Your task to perform on an android device: Search for hotels in New York Image 0: 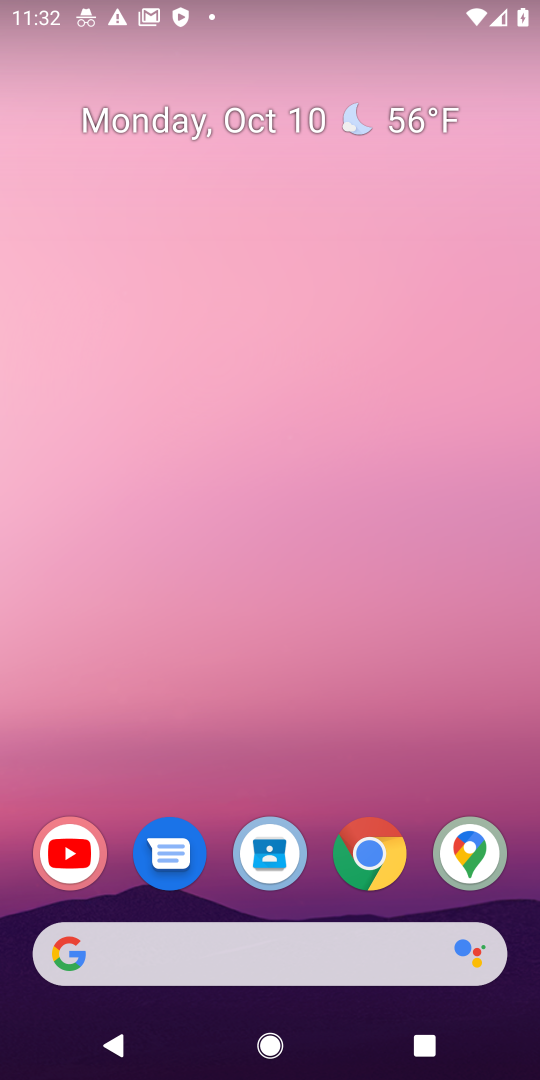
Step 0: press home button
Your task to perform on an android device: Search for hotels in New York Image 1: 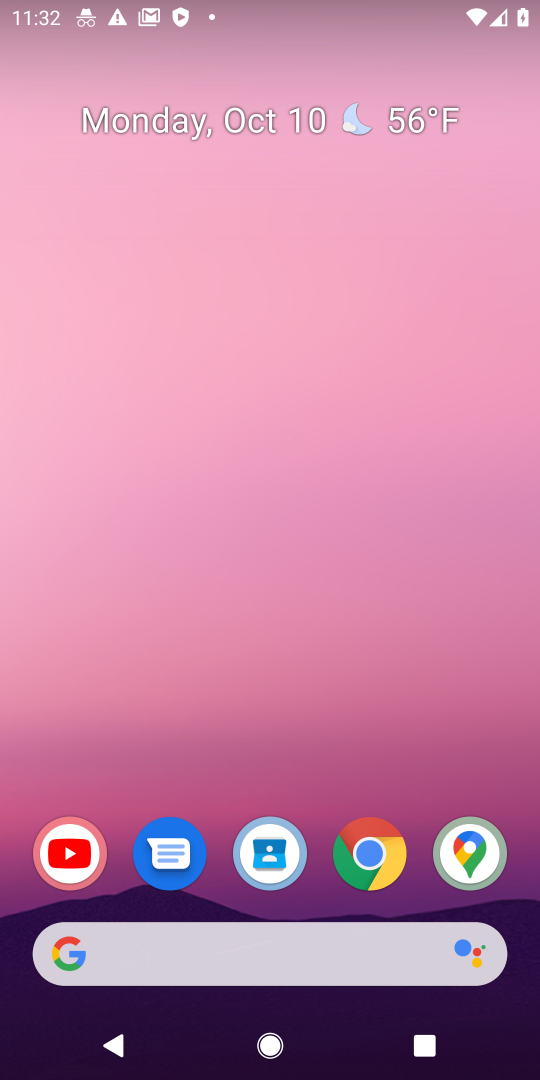
Step 1: click (333, 954)
Your task to perform on an android device: Search for hotels in New York Image 2: 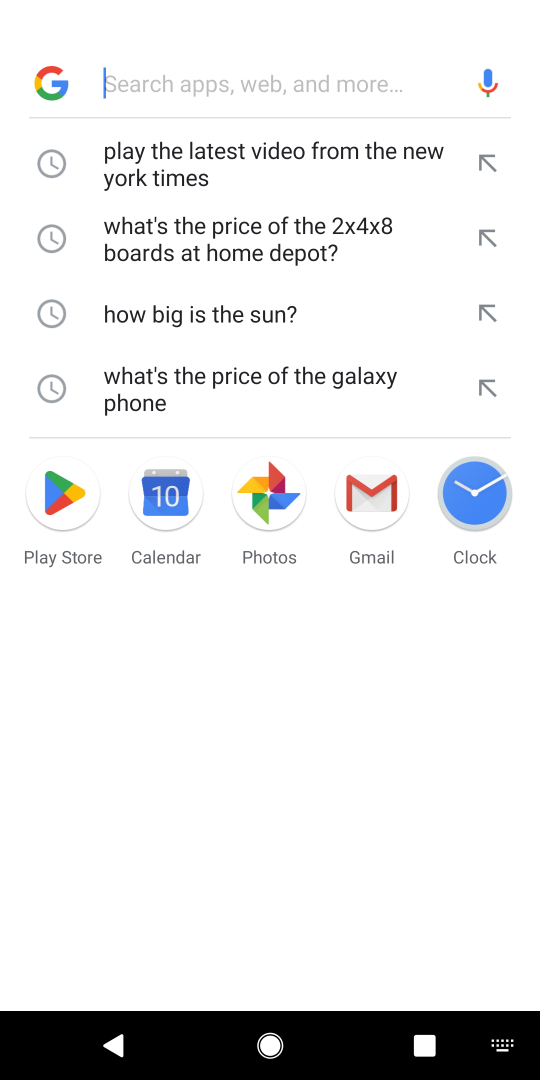
Step 2: type "hotels in New York"
Your task to perform on an android device: Search for hotels in New York Image 3: 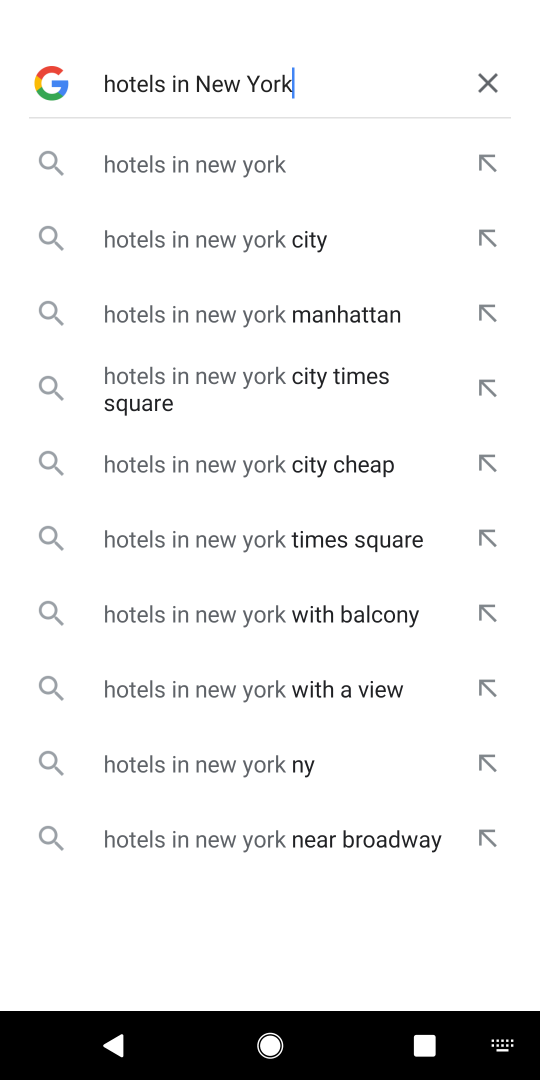
Step 3: press enter
Your task to perform on an android device: Search for hotels in New York Image 4: 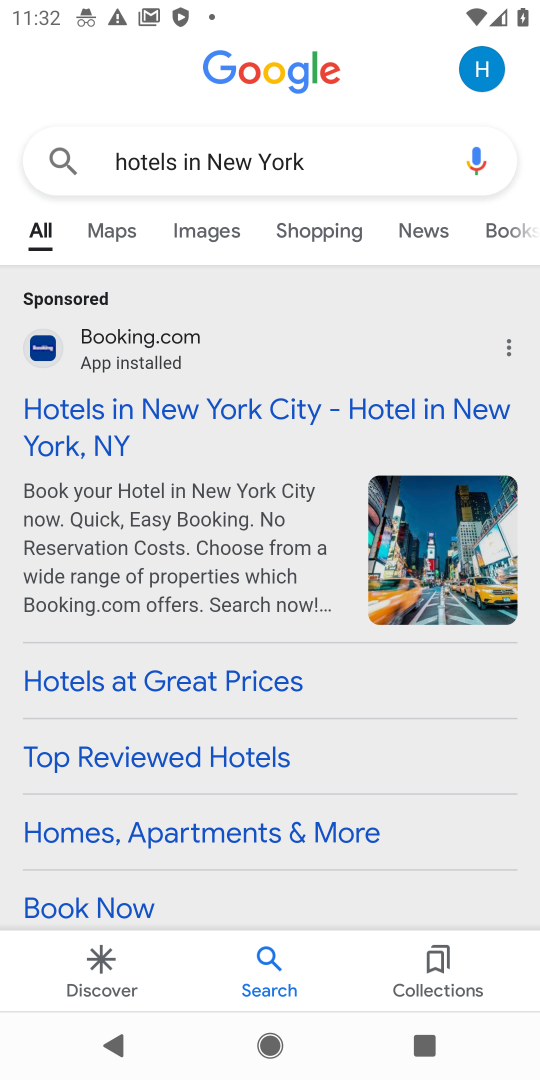
Step 4: click (150, 418)
Your task to perform on an android device: Search for hotels in New York Image 5: 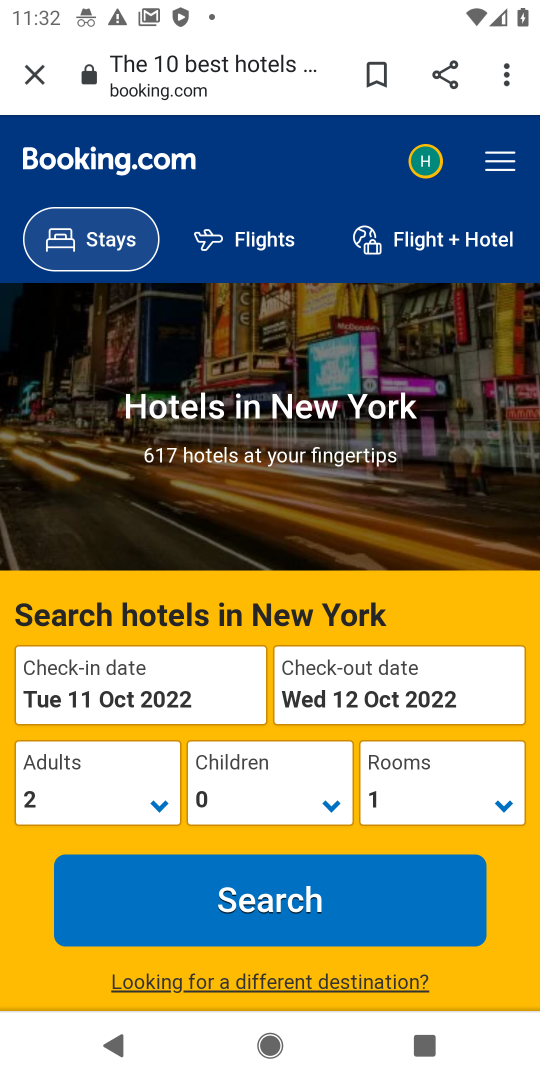
Step 5: click (339, 902)
Your task to perform on an android device: Search for hotels in New York Image 6: 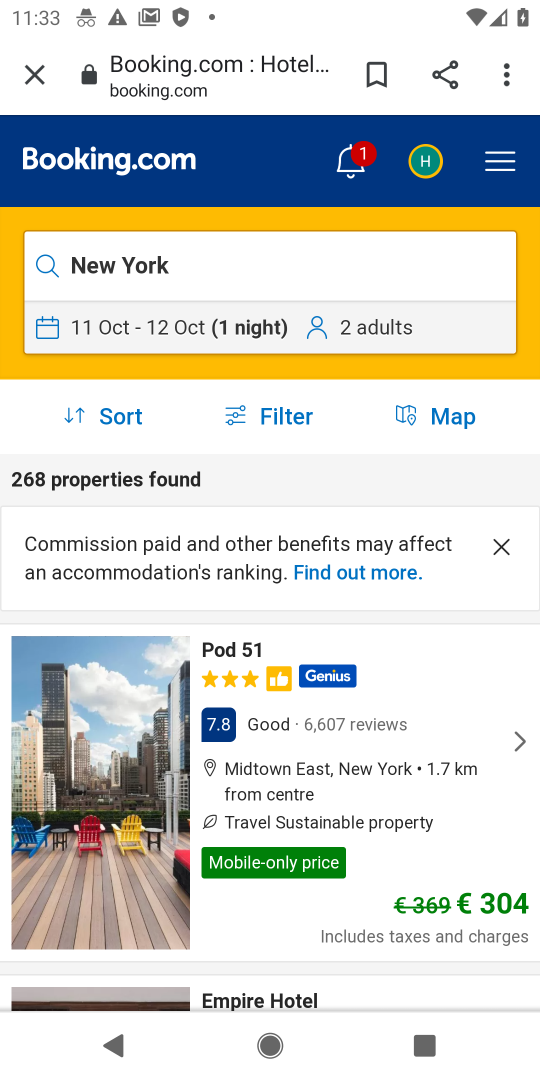
Step 6: task complete